Your task to perform on an android device: Go to notification settings Image 0: 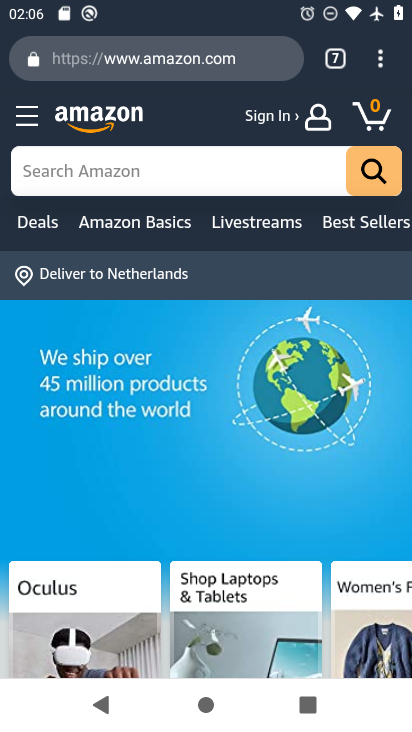
Step 0: press home button
Your task to perform on an android device: Go to notification settings Image 1: 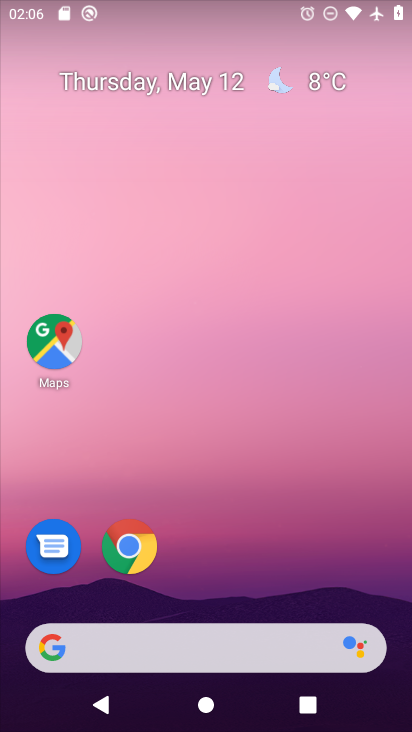
Step 1: drag from (144, 653) to (221, 163)
Your task to perform on an android device: Go to notification settings Image 2: 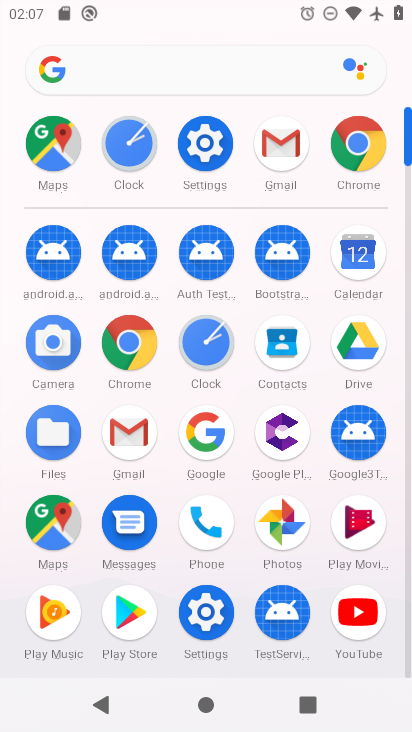
Step 2: click (204, 162)
Your task to perform on an android device: Go to notification settings Image 3: 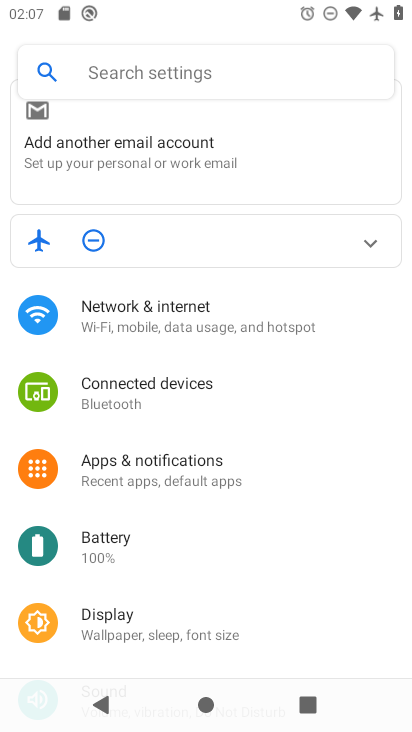
Step 3: click (202, 478)
Your task to perform on an android device: Go to notification settings Image 4: 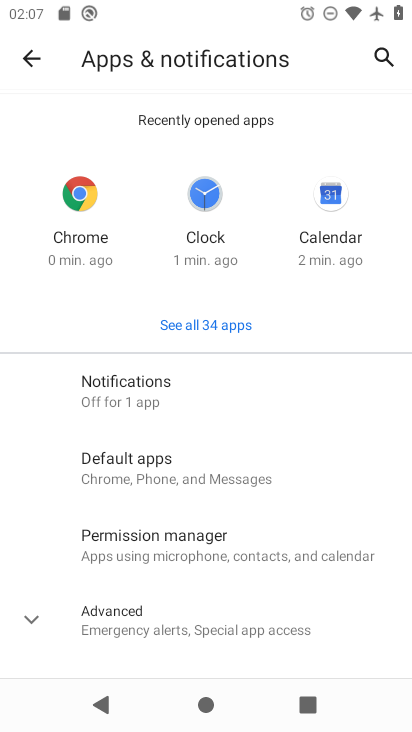
Step 4: click (148, 379)
Your task to perform on an android device: Go to notification settings Image 5: 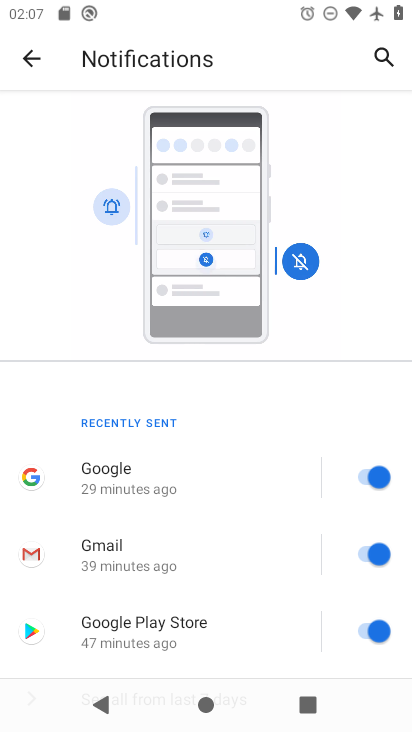
Step 5: task complete